Your task to perform on an android device: turn off translation in the chrome app Image 0: 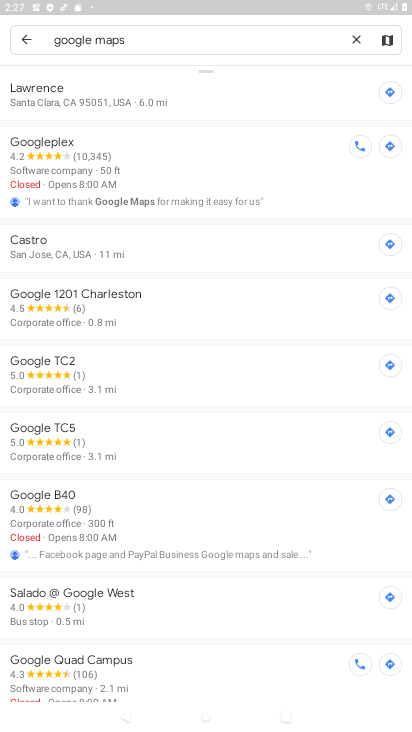
Step 0: press home button
Your task to perform on an android device: turn off translation in the chrome app Image 1: 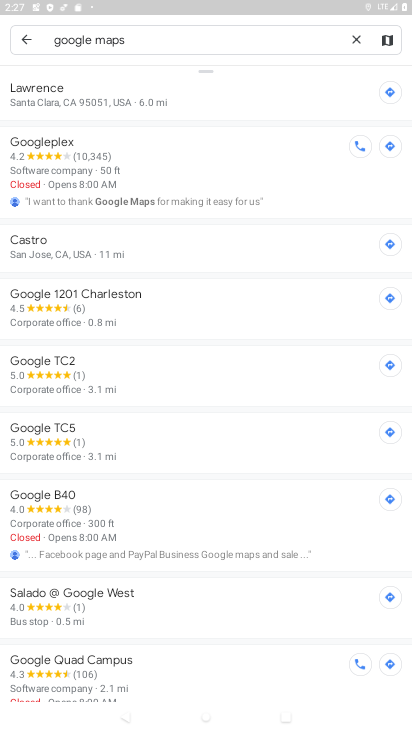
Step 1: drag from (227, 140) to (237, 5)
Your task to perform on an android device: turn off translation in the chrome app Image 2: 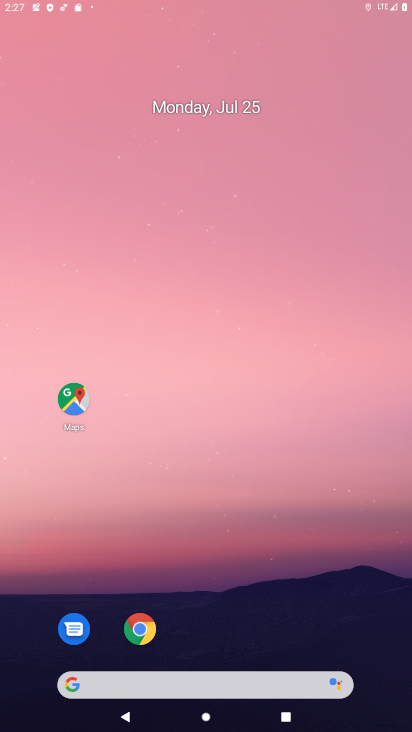
Step 2: click (252, 69)
Your task to perform on an android device: turn off translation in the chrome app Image 3: 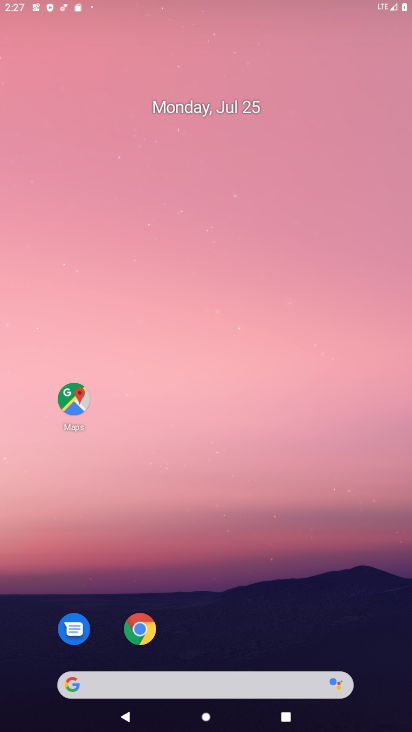
Step 3: press home button
Your task to perform on an android device: turn off translation in the chrome app Image 4: 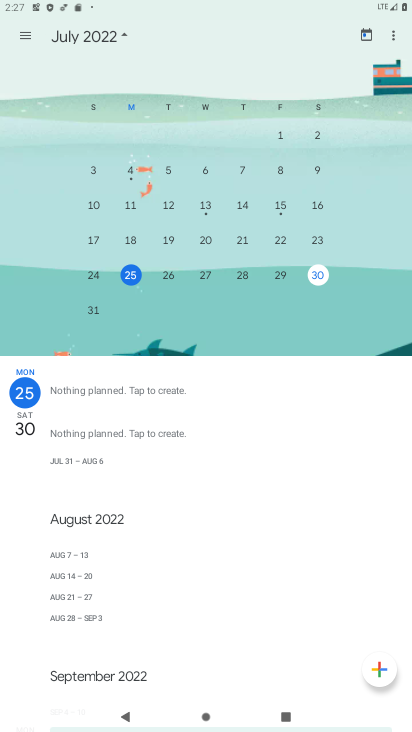
Step 4: press home button
Your task to perform on an android device: turn off translation in the chrome app Image 5: 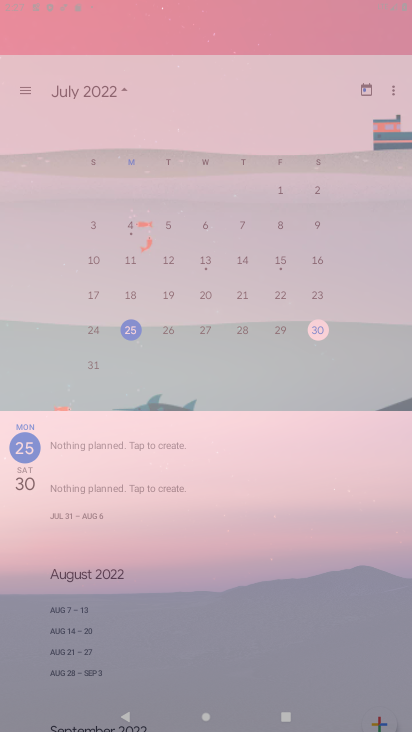
Step 5: drag from (285, 3) to (323, 0)
Your task to perform on an android device: turn off translation in the chrome app Image 6: 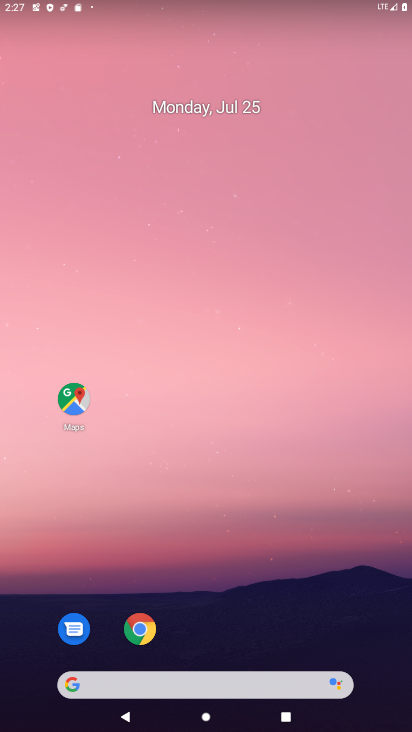
Step 6: click (139, 623)
Your task to perform on an android device: turn off translation in the chrome app Image 7: 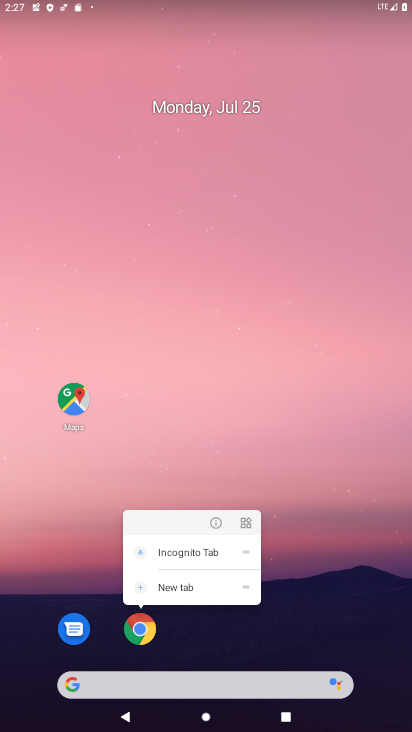
Step 7: click (214, 519)
Your task to perform on an android device: turn off translation in the chrome app Image 8: 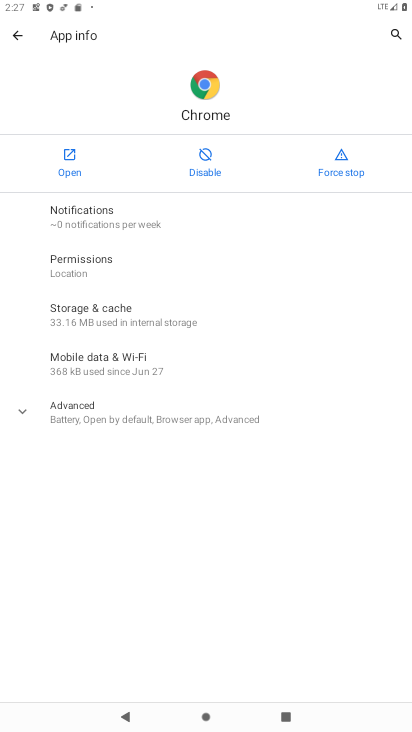
Step 8: click (68, 162)
Your task to perform on an android device: turn off translation in the chrome app Image 9: 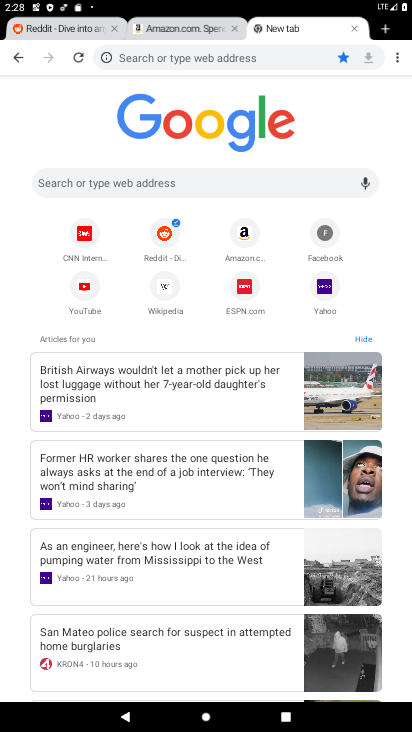
Step 9: drag from (192, 305) to (208, 141)
Your task to perform on an android device: turn off translation in the chrome app Image 10: 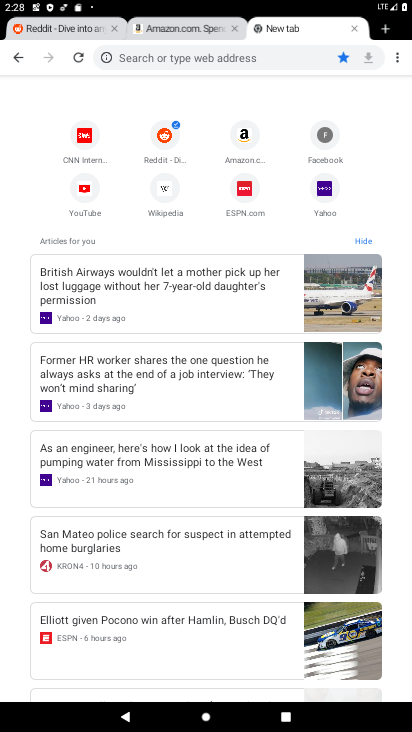
Step 10: drag from (207, 132) to (207, 549)
Your task to perform on an android device: turn off translation in the chrome app Image 11: 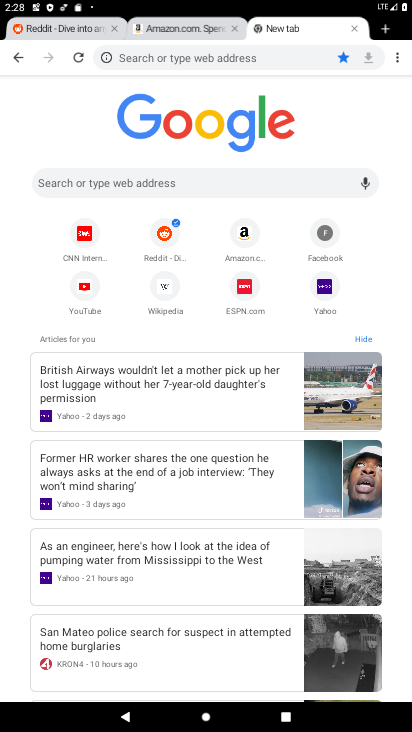
Step 11: drag from (393, 54) to (290, 307)
Your task to perform on an android device: turn off translation in the chrome app Image 12: 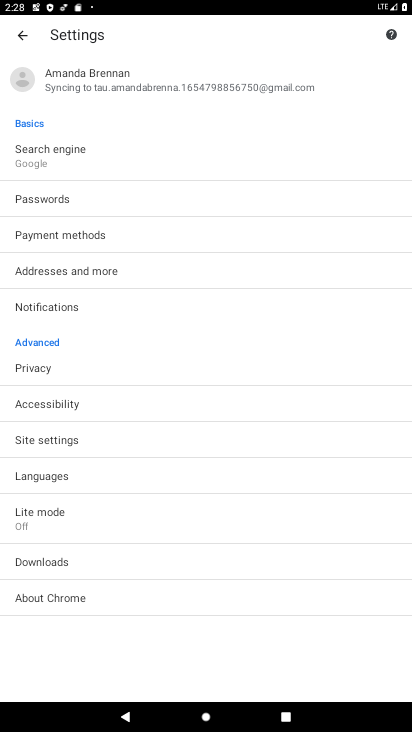
Step 12: click (106, 473)
Your task to perform on an android device: turn off translation in the chrome app Image 13: 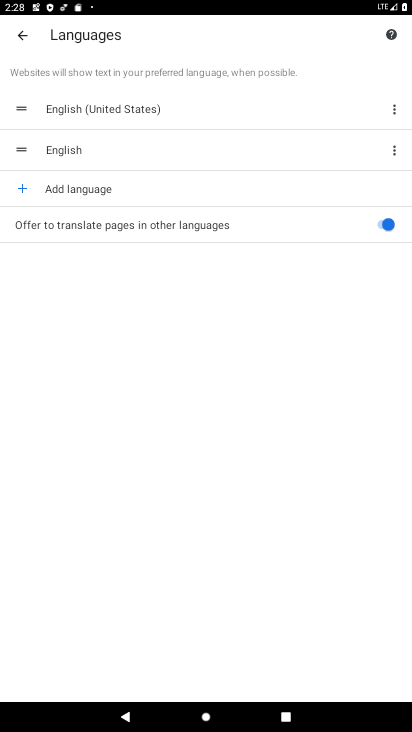
Step 13: task complete